Your task to perform on an android device: open the mobile data screen to see how much data has been used Image 0: 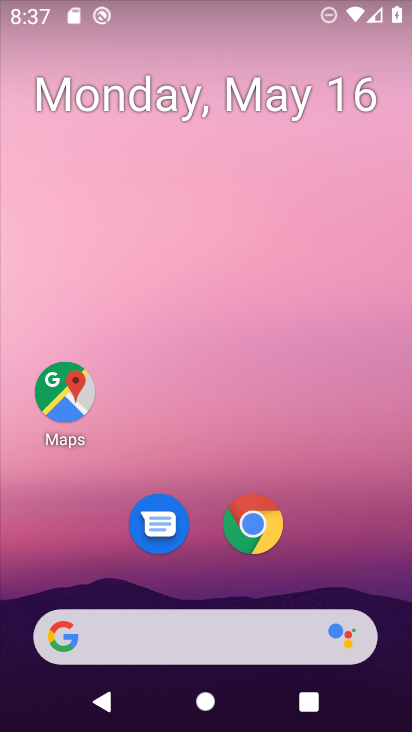
Step 0: drag from (315, 523) to (324, 84)
Your task to perform on an android device: open the mobile data screen to see how much data has been used Image 1: 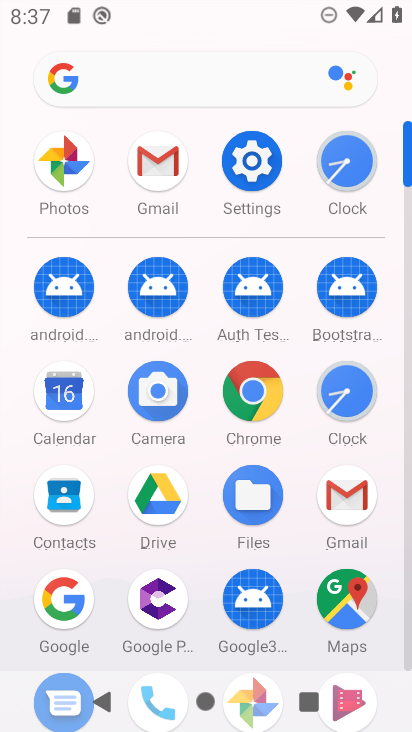
Step 1: click (271, 151)
Your task to perform on an android device: open the mobile data screen to see how much data has been used Image 2: 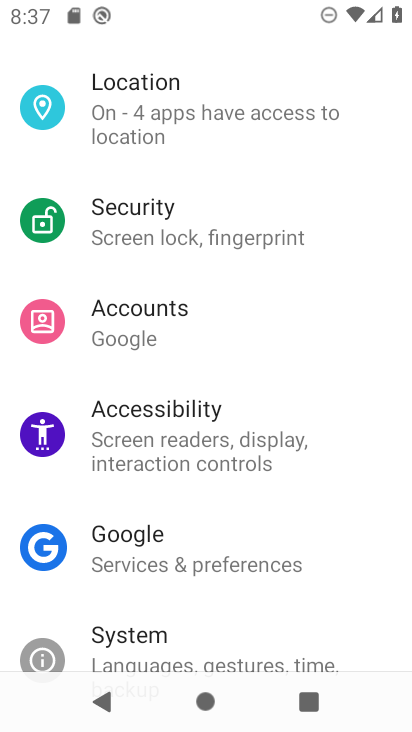
Step 2: drag from (269, 155) to (196, 675)
Your task to perform on an android device: open the mobile data screen to see how much data has been used Image 3: 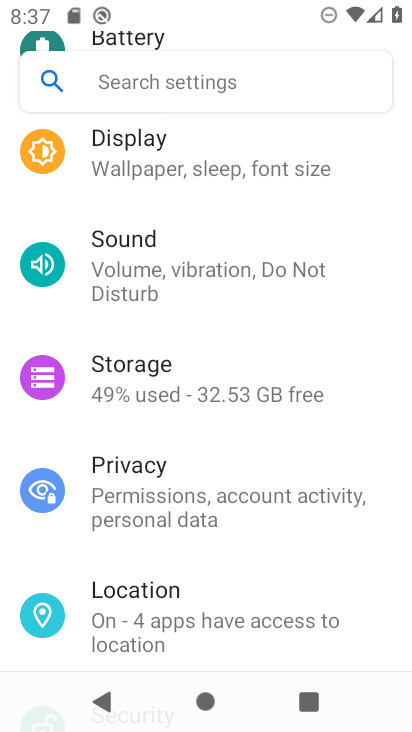
Step 3: drag from (273, 212) to (181, 716)
Your task to perform on an android device: open the mobile data screen to see how much data has been used Image 4: 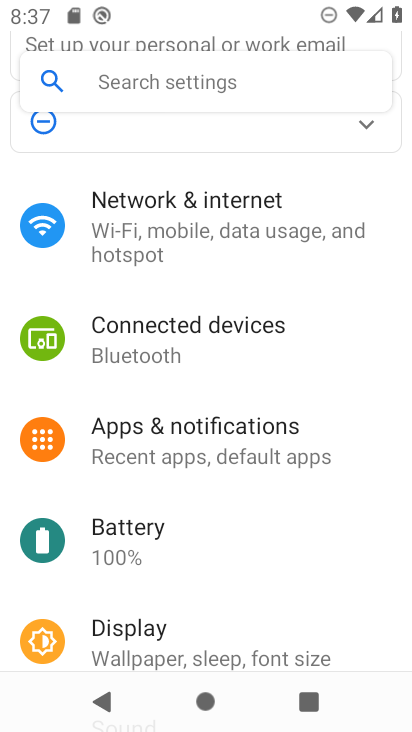
Step 4: click (241, 223)
Your task to perform on an android device: open the mobile data screen to see how much data has been used Image 5: 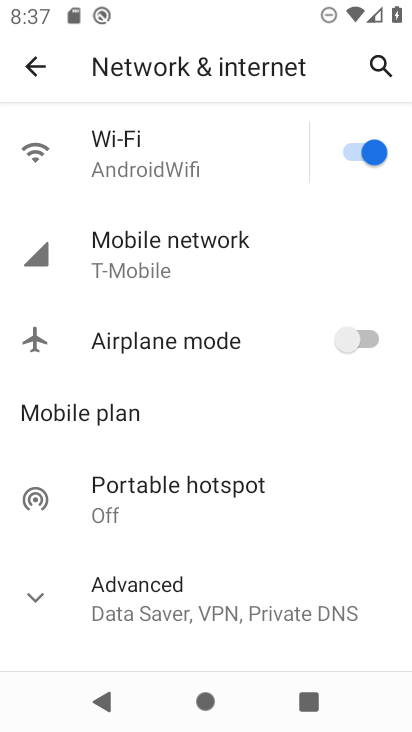
Step 5: click (241, 228)
Your task to perform on an android device: open the mobile data screen to see how much data has been used Image 6: 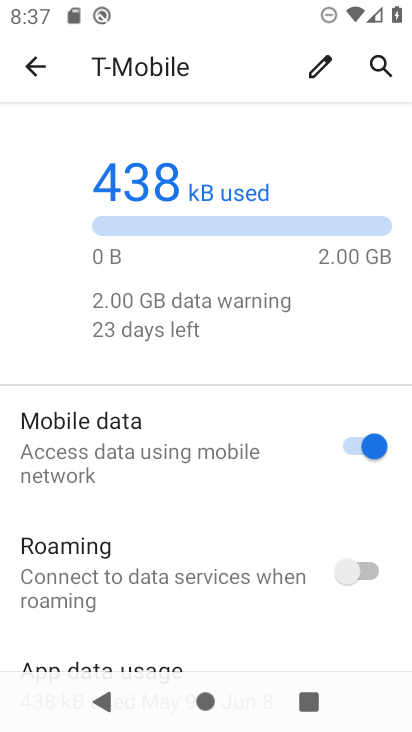
Step 6: task complete